Your task to perform on an android device: Open the calendar app, open the side menu, and click the "Day" option Image 0: 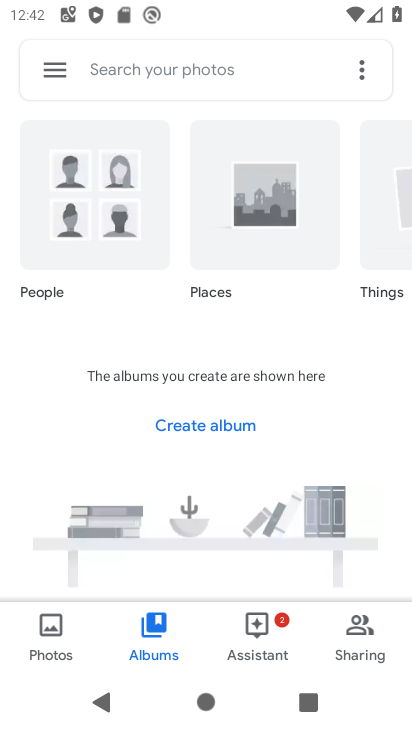
Step 0: press home button
Your task to perform on an android device: Open the calendar app, open the side menu, and click the "Day" option Image 1: 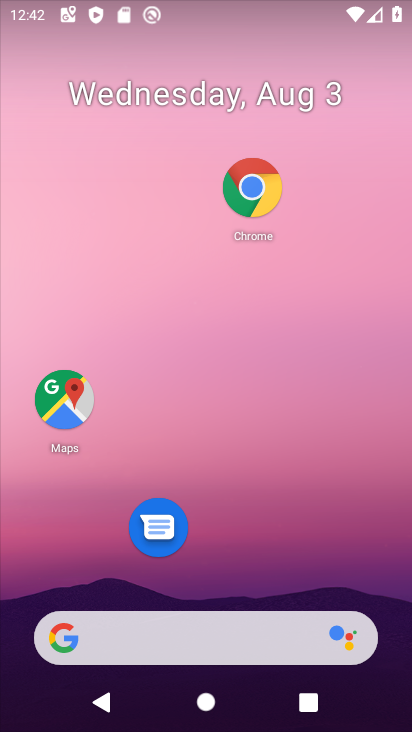
Step 1: drag from (211, 516) to (202, 20)
Your task to perform on an android device: Open the calendar app, open the side menu, and click the "Day" option Image 2: 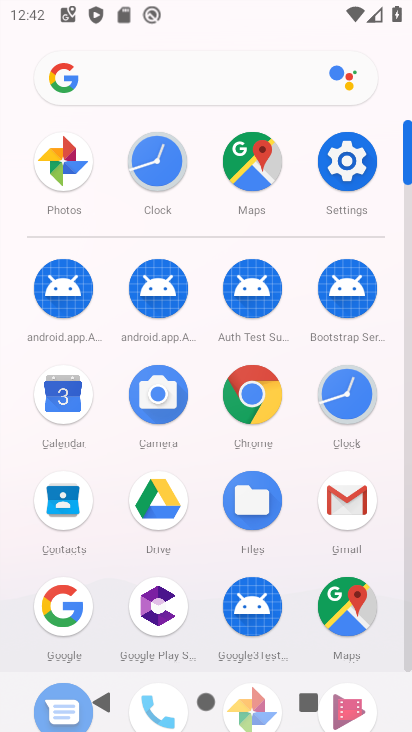
Step 2: click (68, 422)
Your task to perform on an android device: Open the calendar app, open the side menu, and click the "Day" option Image 3: 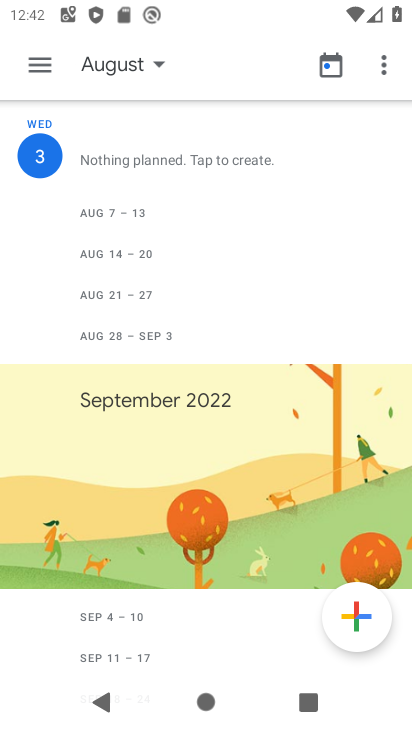
Step 3: click (43, 66)
Your task to perform on an android device: Open the calendar app, open the side menu, and click the "Day" option Image 4: 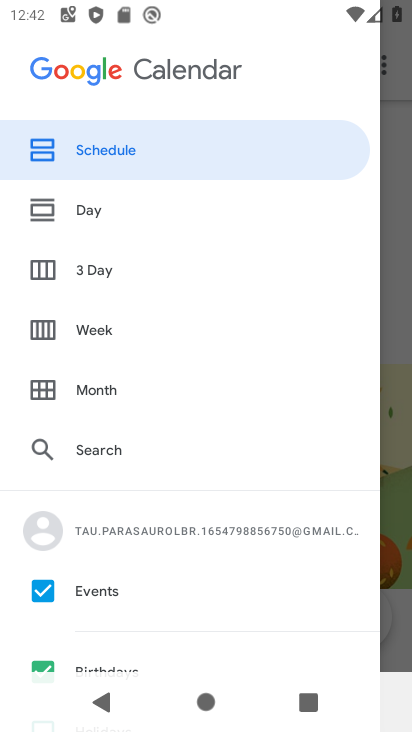
Step 4: click (96, 213)
Your task to perform on an android device: Open the calendar app, open the side menu, and click the "Day" option Image 5: 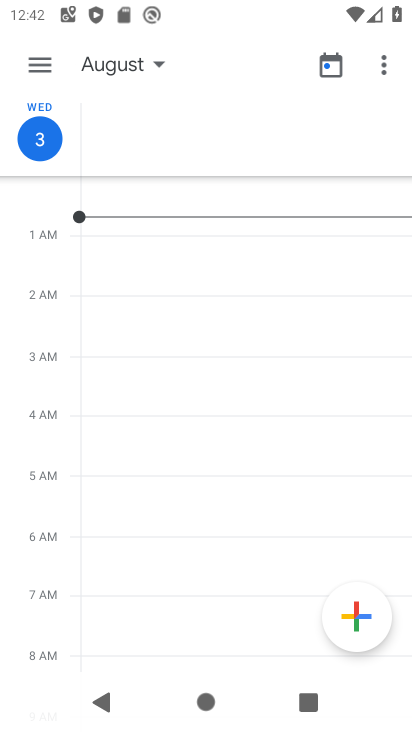
Step 5: task complete